Your task to perform on an android device: Open Youtube and go to "Your channel" Image 0: 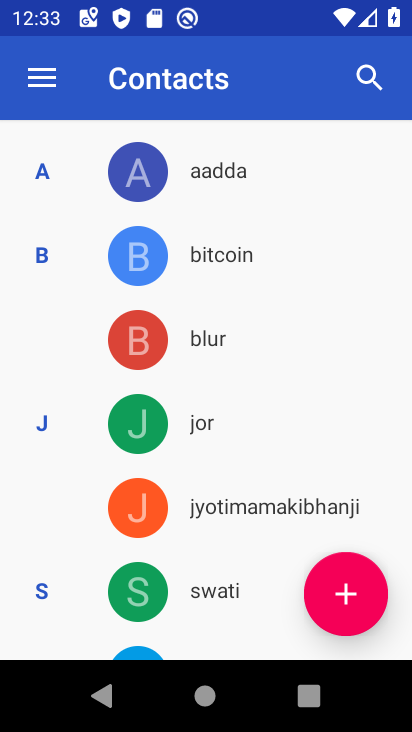
Step 0: press home button
Your task to perform on an android device: Open Youtube and go to "Your channel" Image 1: 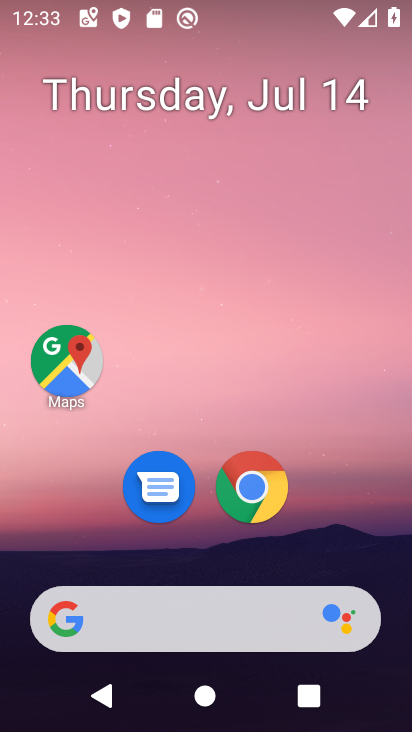
Step 1: drag from (245, 552) to (278, 155)
Your task to perform on an android device: Open Youtube and go to "Your channel" Image 2: 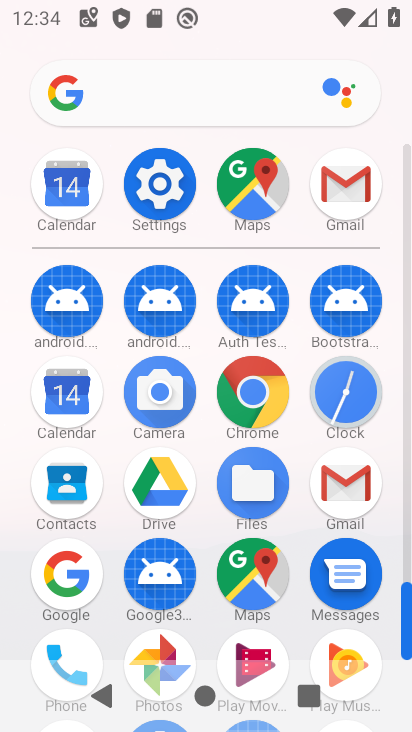
Step 2: drag from (203, 475) to (226, 152)
Your task to perform on an android device: Open Youtube and go to "Your channel" Image 3: 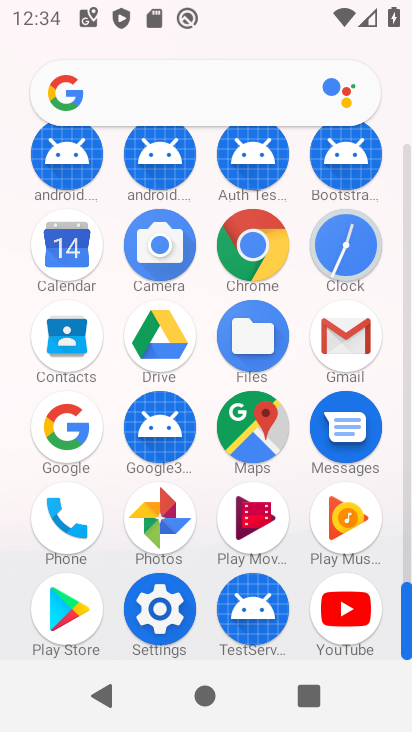
Step 3: click (339, 603)
Your task to perform on an android device: Open Youtube and go to "Your channel" Image 4: 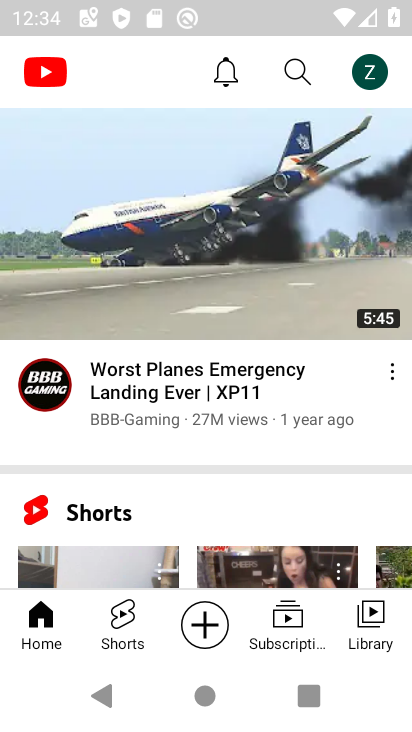
Step 4: click (371, 71)
Your task to perform on an android device: Open Youtube and go to "Your channel" Image 5: 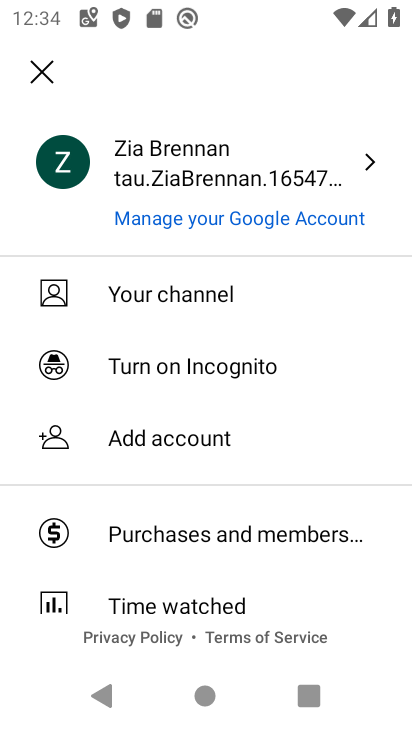
Step 5: click (127, 276)
Your task to perform on an android device: Open Youtube and go to "Your channel" Image 6: 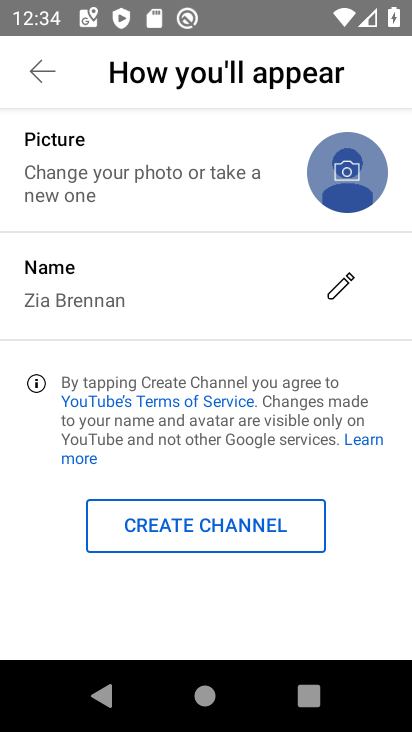
Step 6: task complete